Your task to perform on an android device: Go to wifi settings Image 0: 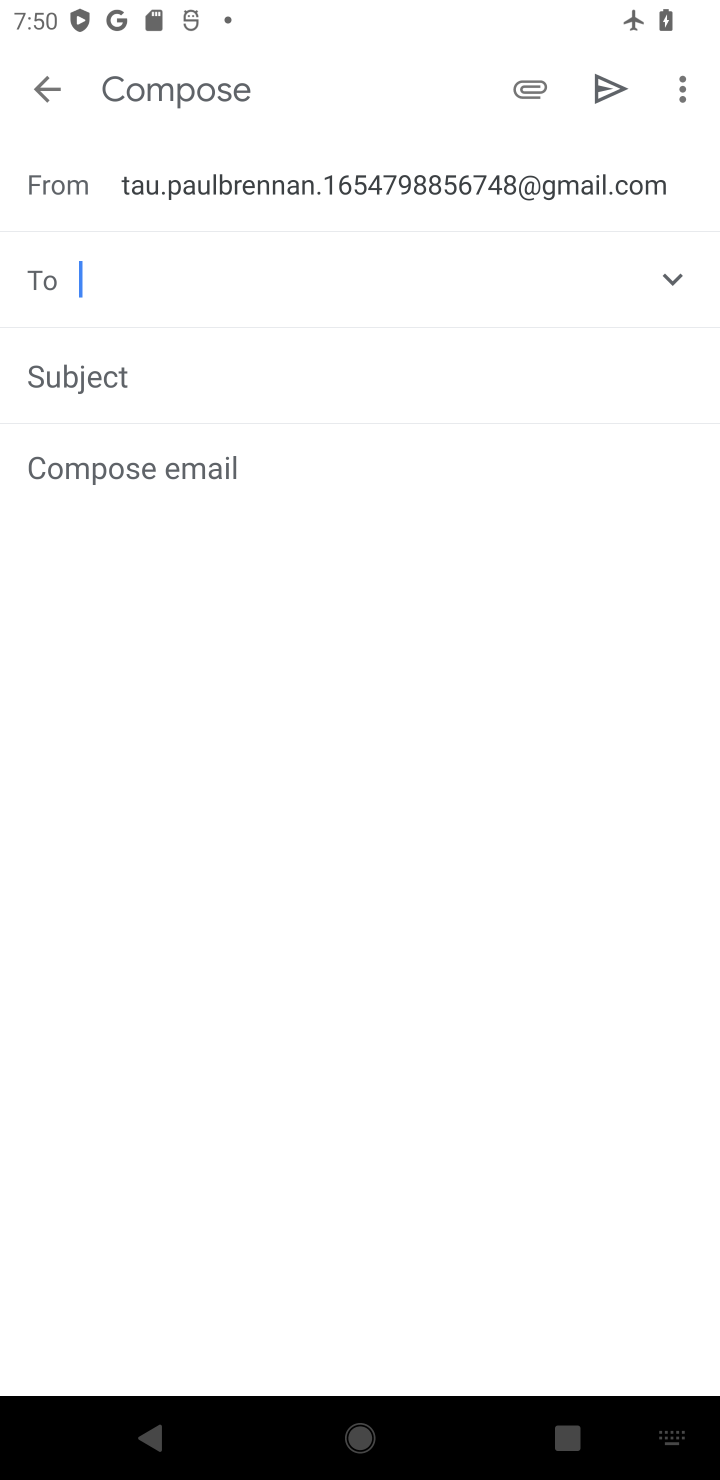
Step 0: press home button
Your task to perform on an android device: Go to wifi settings Image 1: 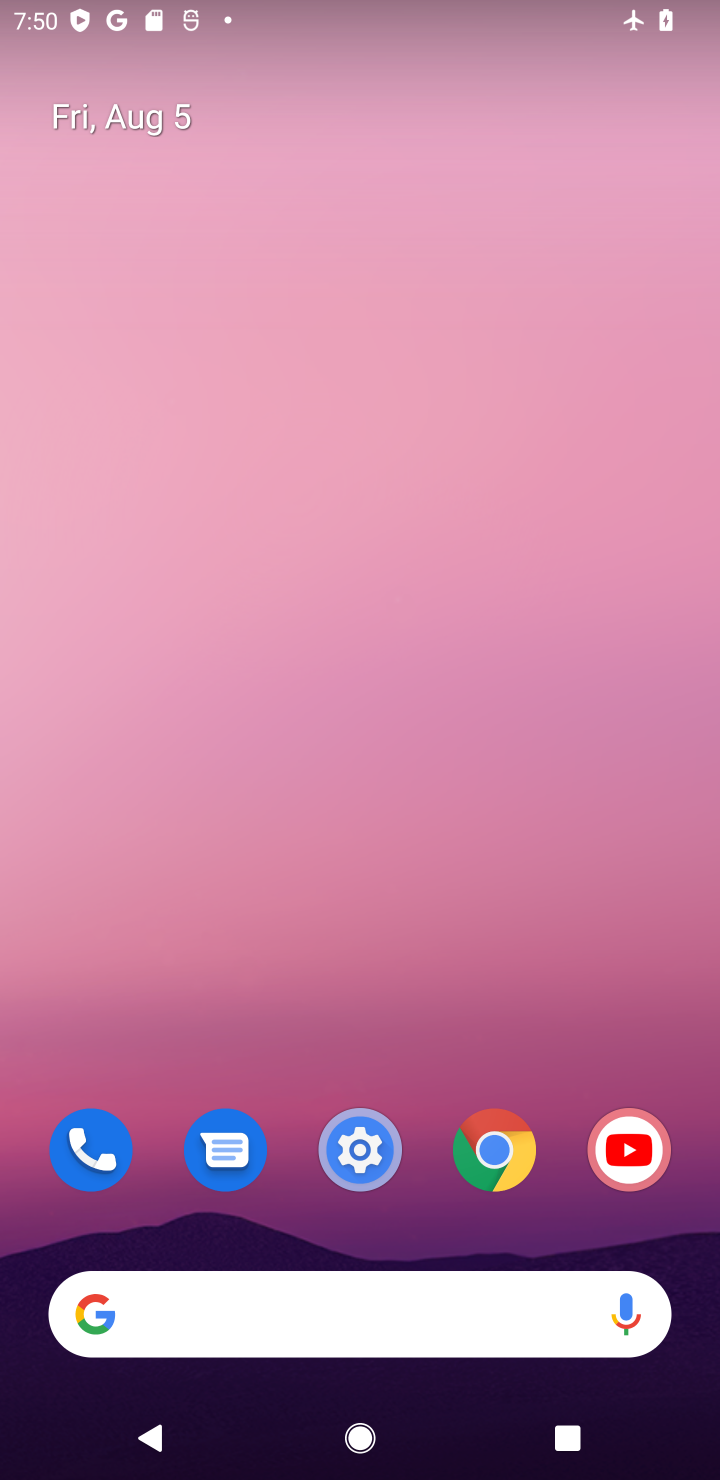
Step 1: drag from (448, 1058) to (435, 183)
Your task to perform on an android device: Go to wifi settings Image 2: 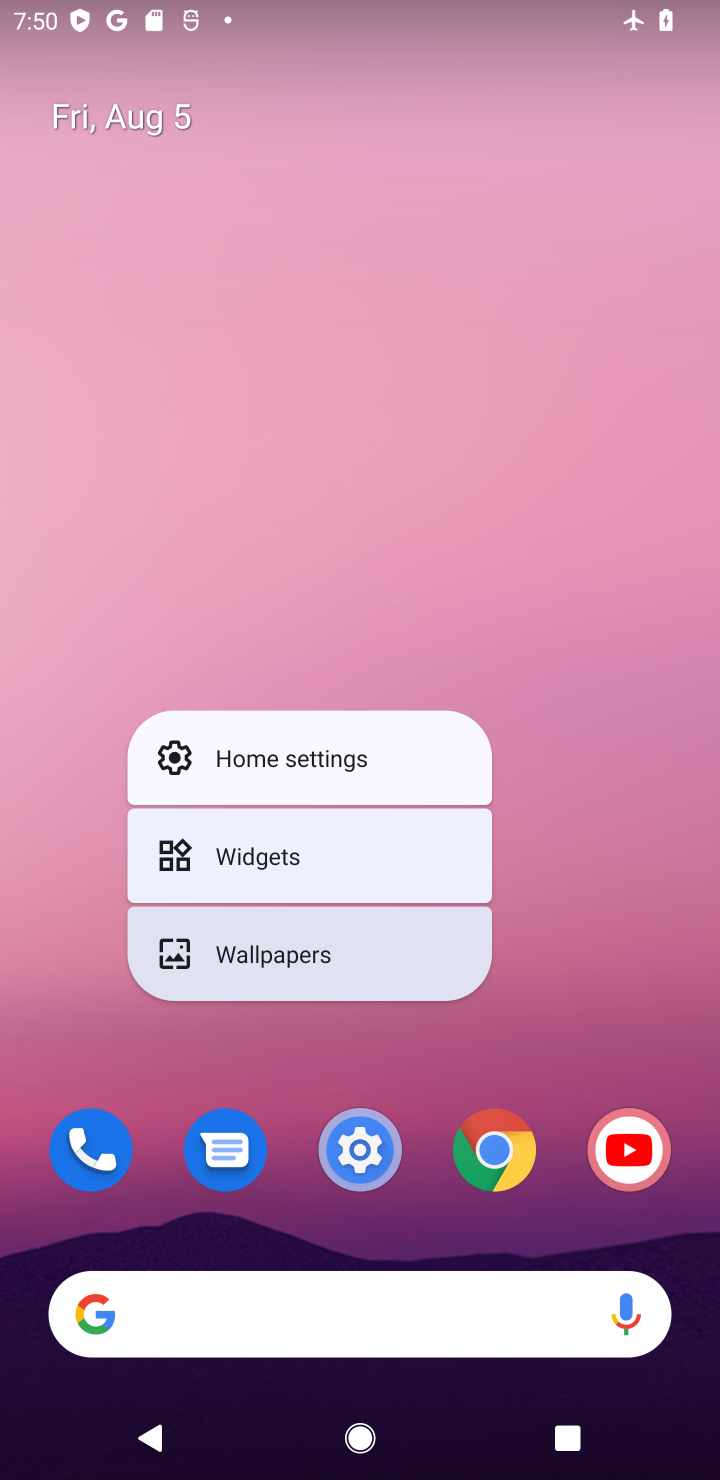
Step 2: click (605, 911)
Your task to perform on an android device: Go to wifi settings Image 3: 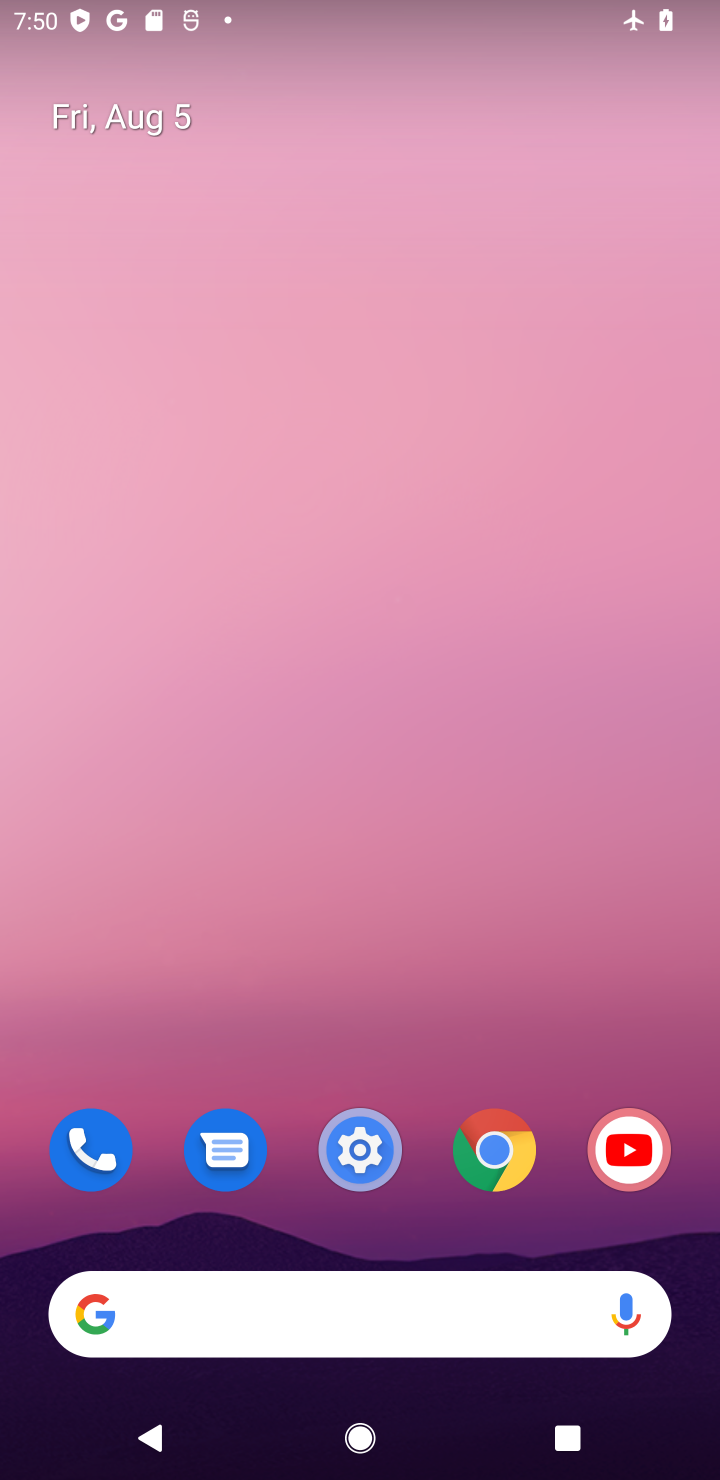
Step 3: click (565, 828)
Your task to perform on an android device: Go to wifi settings Image 4: 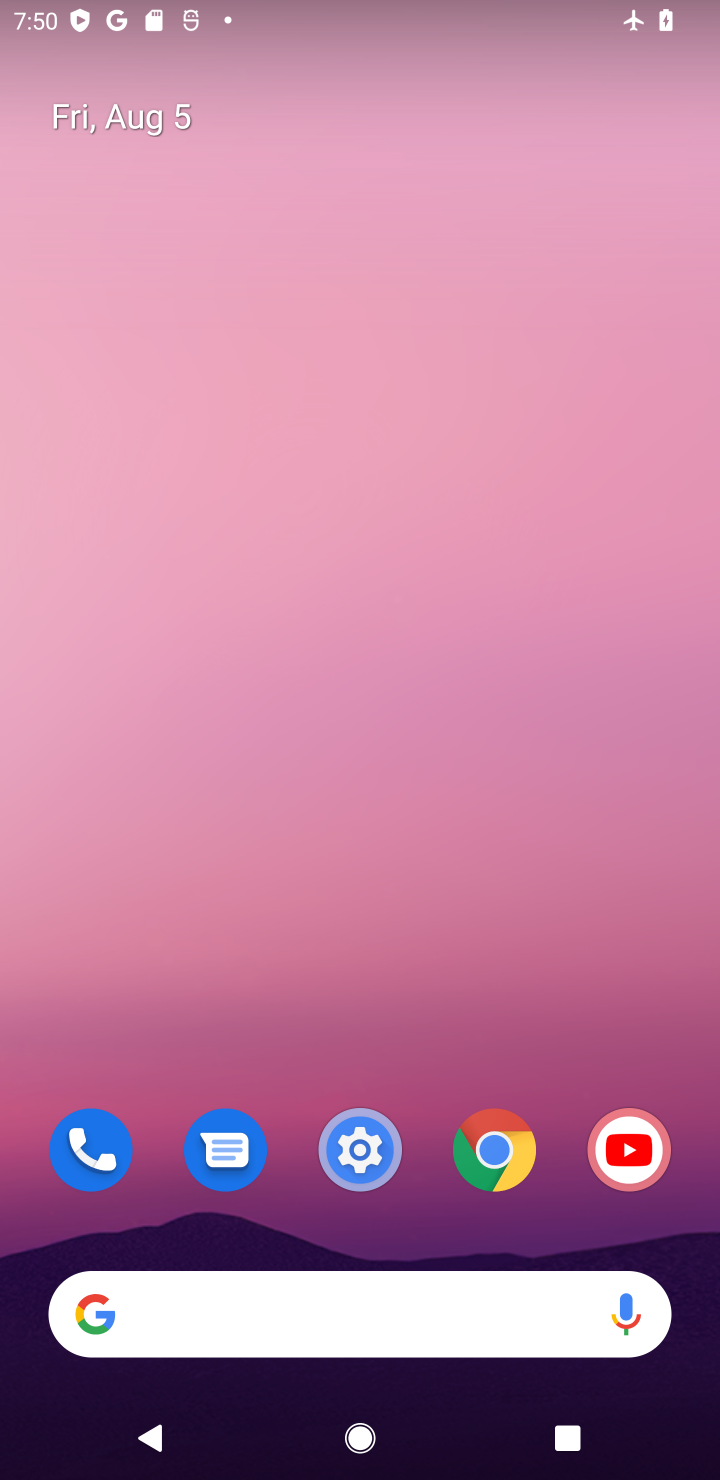
Step 4: drag from (536, 1041) to (526, 136)
Your task to perform on an android device: Go to wifi settings Image 5: 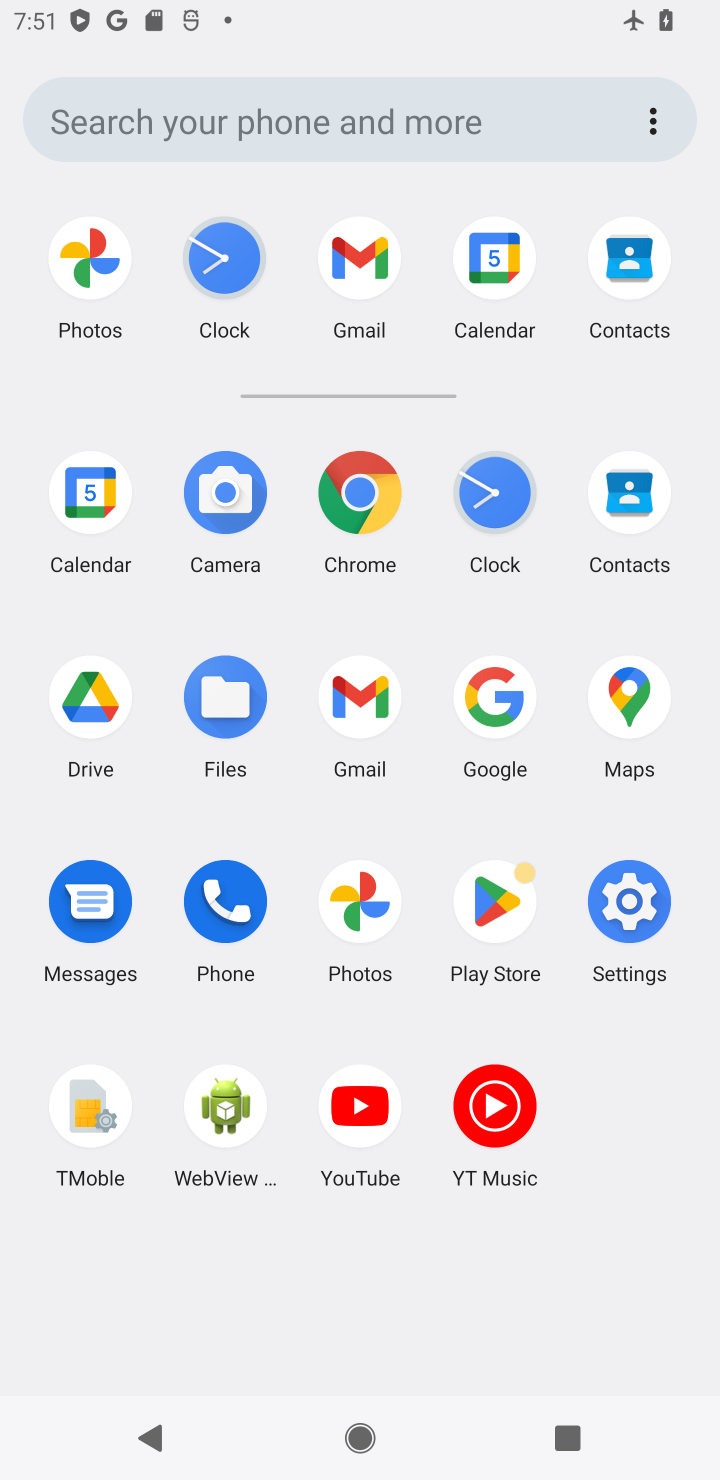
Step 5: click (620, 922)
Your task to perform on an android device: Go to wifi settings Image 6: 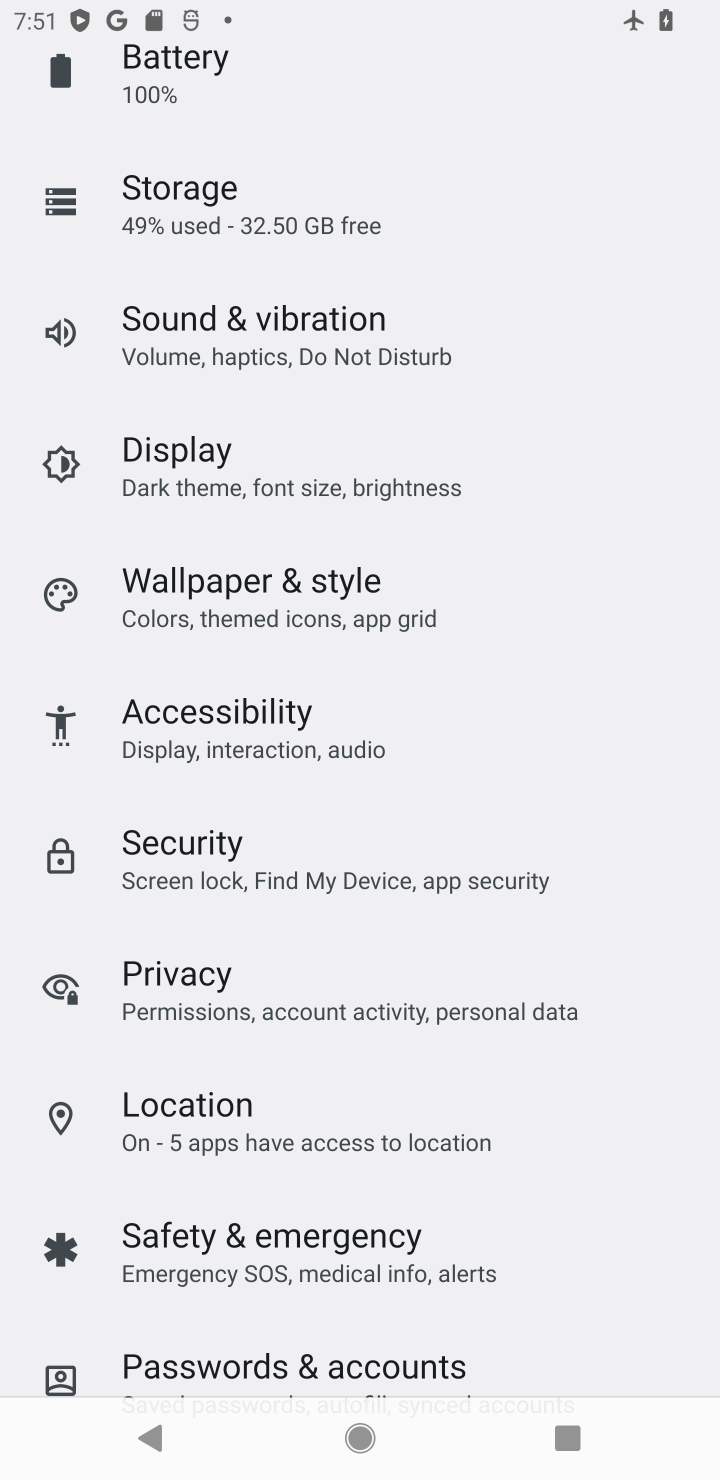
Step 6: drag from (602, 400) to (604, 673)
Your task to perform on an android device: Go to wifi settings Image 7: 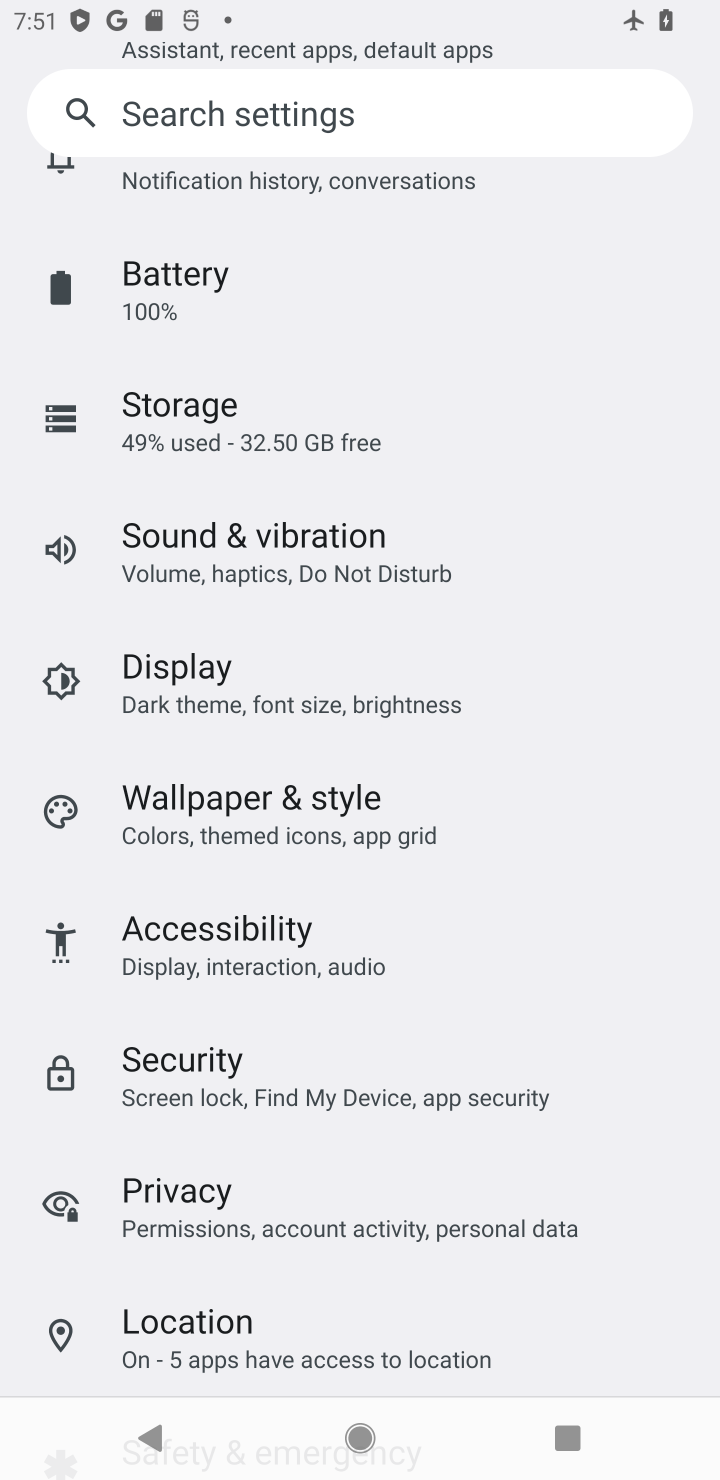
Step 7: drag from (590, 393) to (603, 685)
Your task to perform on an android device: Go to wifi settings Image 8: 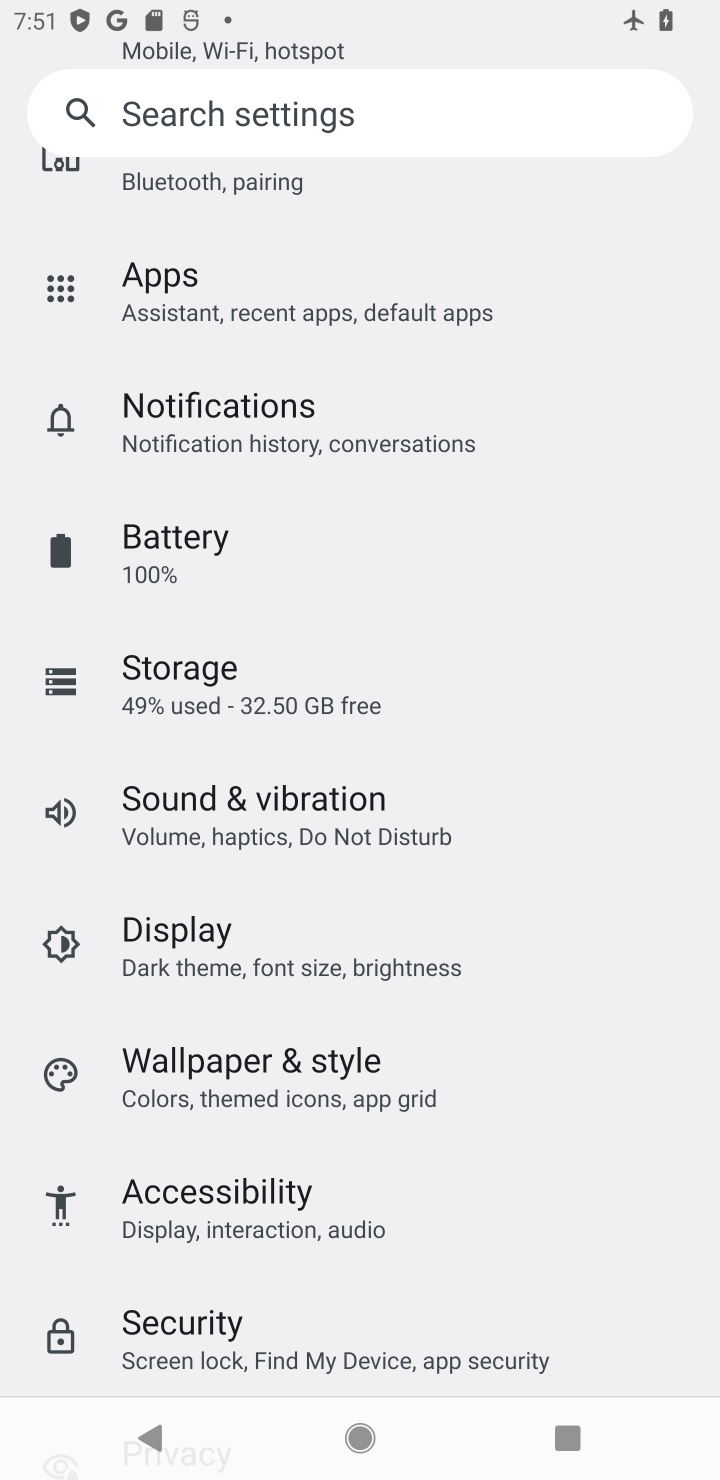
Step 8: drag from (579, 332) to (590, 773)
Your task to perform on an android device: Go to wifi settings Image 9: 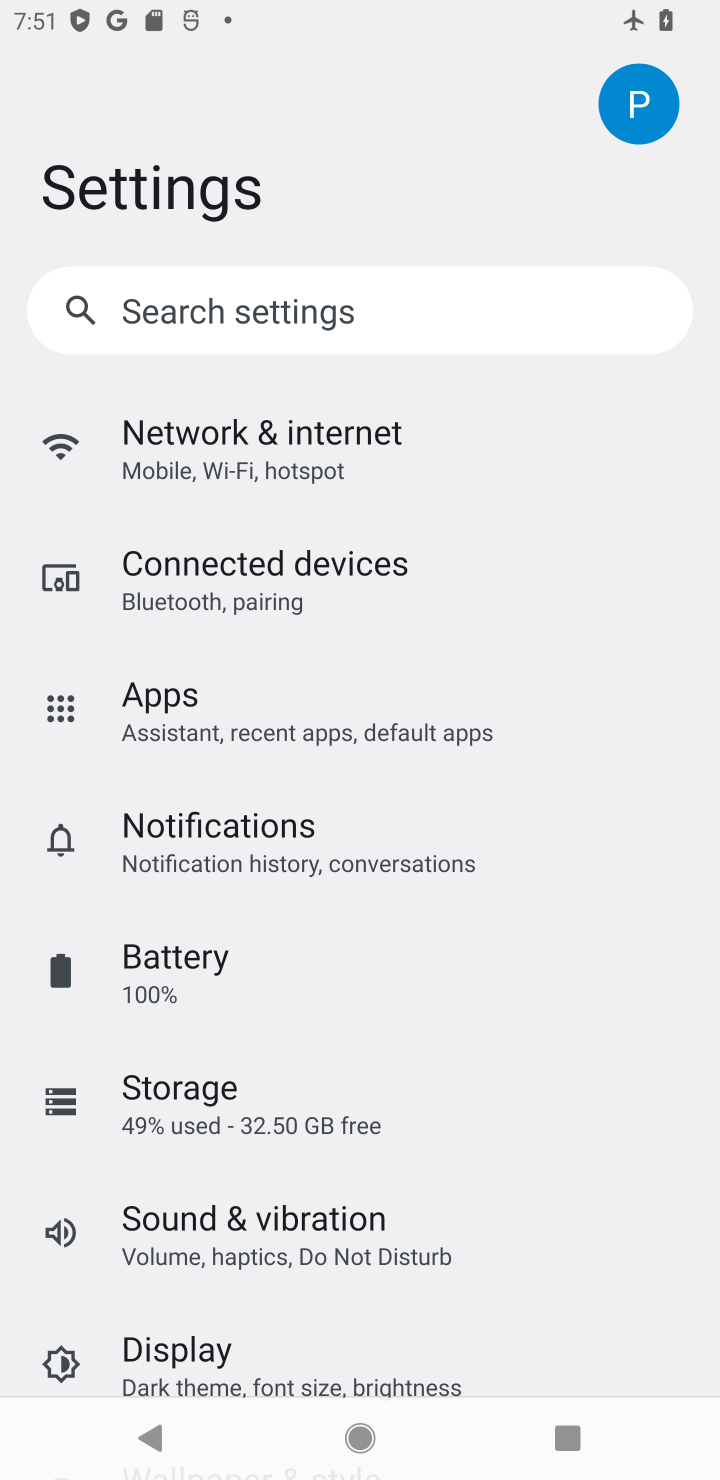
Step 9: click (366, 426)
Your task to perform on an android device: Go to wifi settings Image 10: 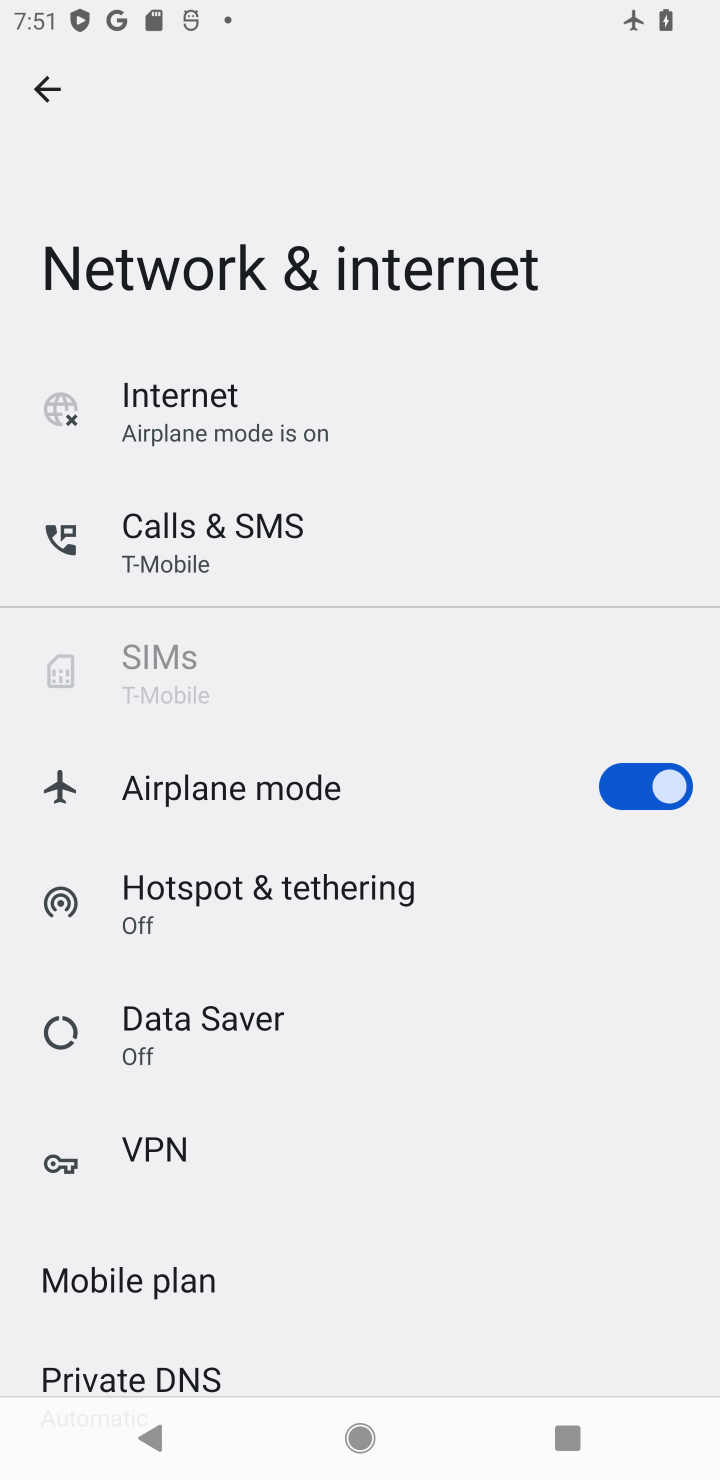
Step 10: click (307, 404)
Your task to perform on an android device: Go to wifi settings Image 11: 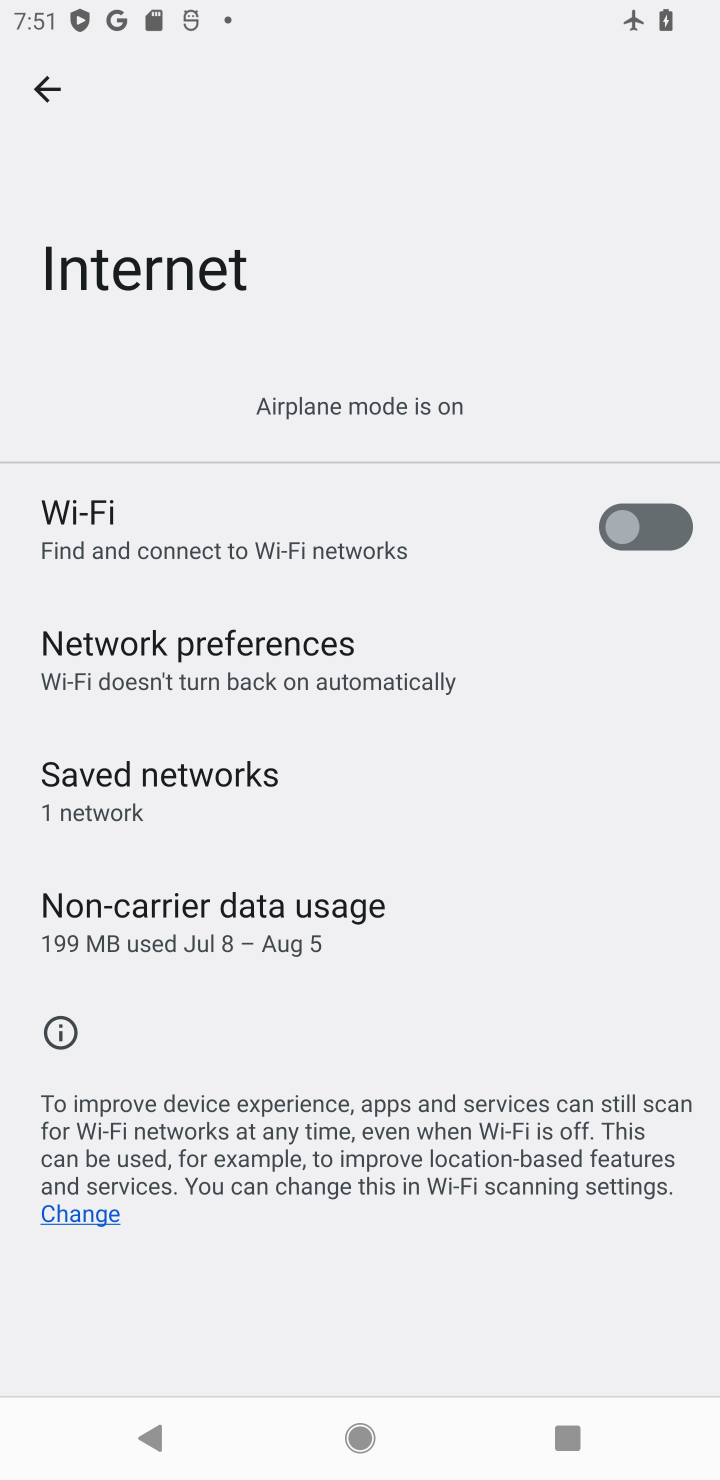
Step 11: task complete